Your task to perform on an android device: set the stopwatch Image 0: 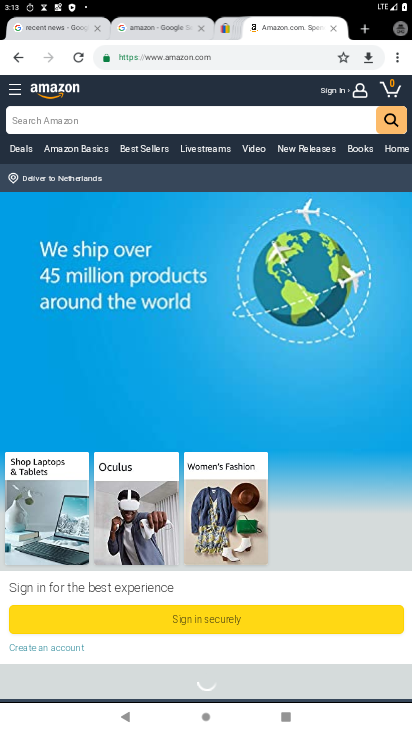
Step 0: press home button
Your task to perform on an android device: set the stopwatch Image 1: 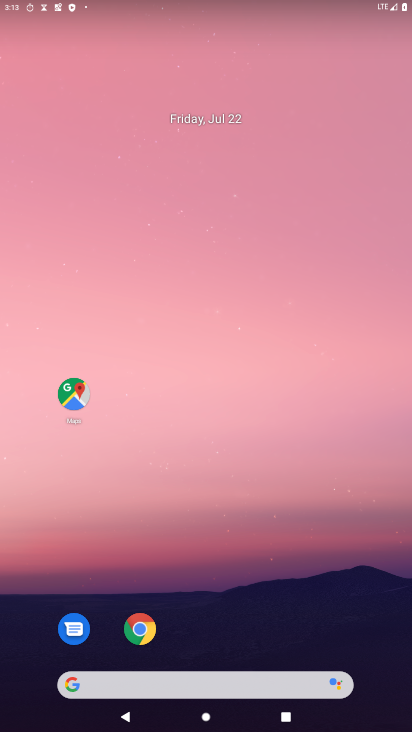
Step 1: drag from (287, 693) to (395, 379)
Your task to perform on an android device: set the stopwatch Image 2: 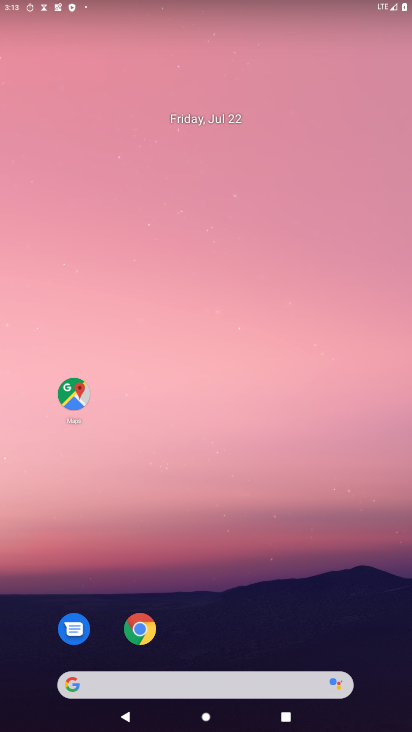
Step 2: click (196, 293)
Your task to perform on an android device: set the stopwatch Image 3: 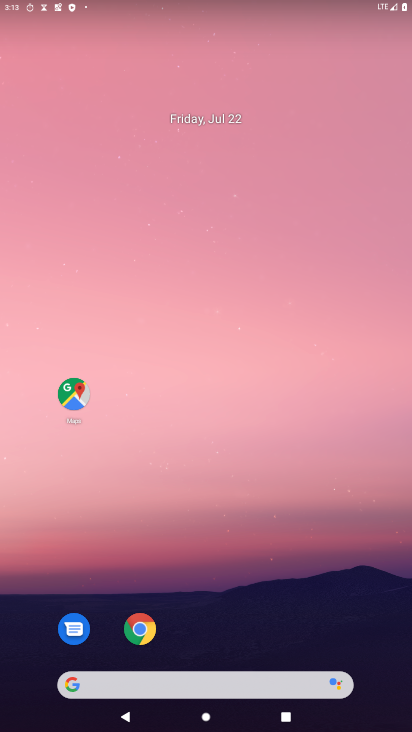
Step 3: drag from (277, 649) to (313, 4)
Your task to perform on an android device: set the stopwatch Image 4: 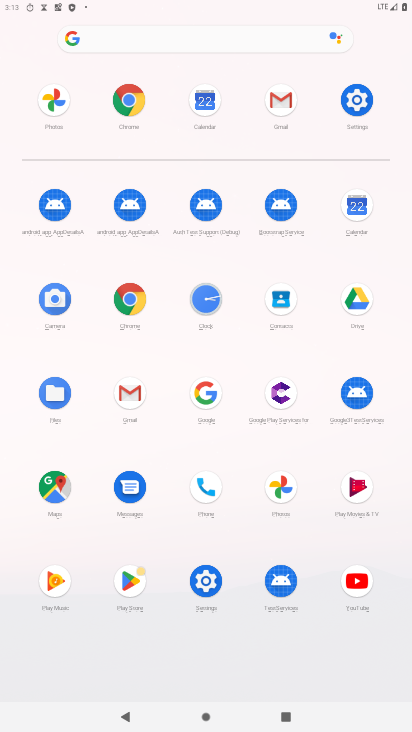
Step 4: click (207, 301)
Your task to perform on an android device: set the stopwatch Image 5: 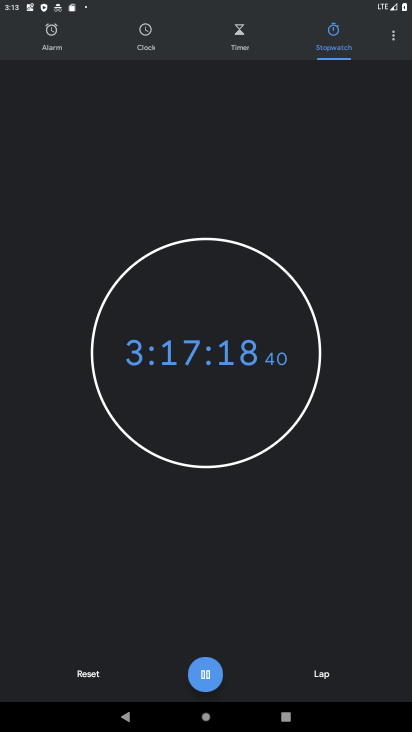
Step 5: task complete